Your task to perform on an android device: Show me productivity apps on the Play Store Image 0: 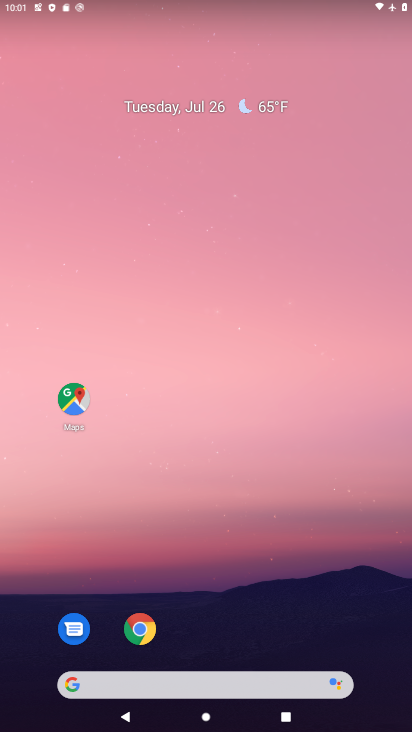
Step 0: drag from (289, 630) to (190, 59)
Your task to perform on an android device: Show me productivity apps on the Play Store Image 1: 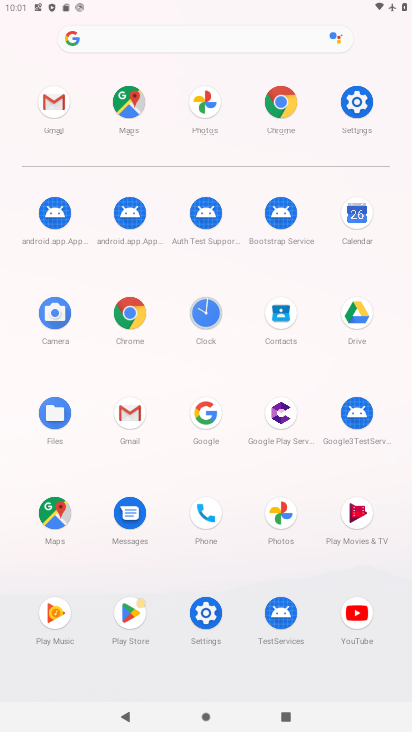
Step 1: click (135, 615)
Your task to perform on an android device: Show me productivity apps on the Play Store Image 2: 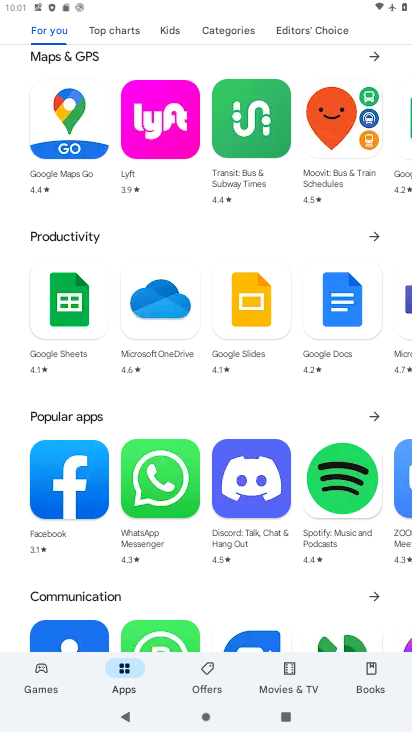
Step 2: task complete